Your task to perform on an android device: find snoozed emails in the gmail app Image 0: 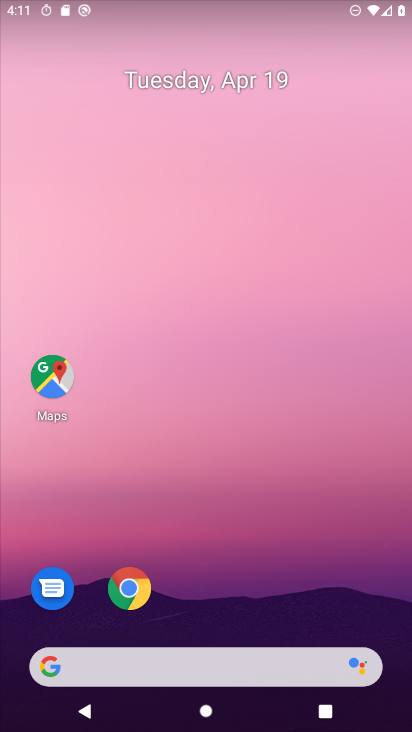
Step 0: click (263, 63)
Your task to perform on an android device: find snoozed emails in the gmail app Image 1: 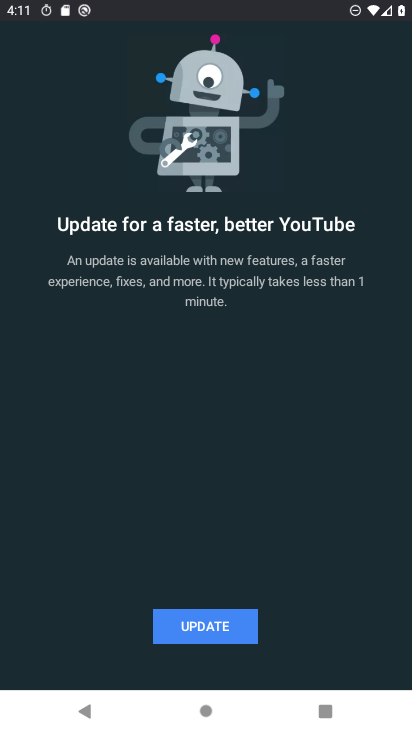
Step 1: press home button
Your task to perform on an android device: find snoozed emails in the gmail app Image 2: 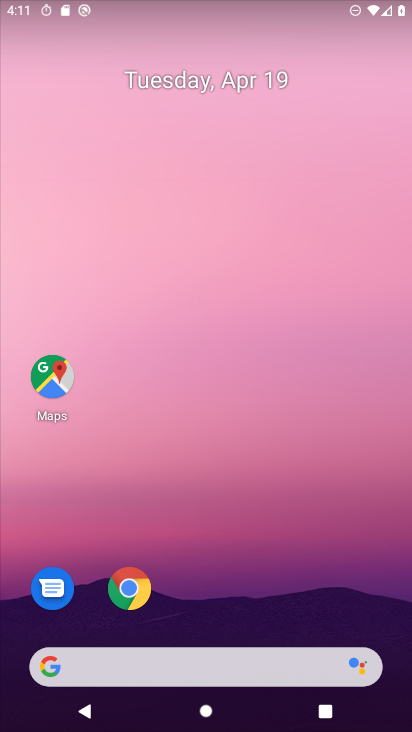
Step 2: drag from (218, 523) to (232, 48)
Your task to perform on an android device: find snoozed emails in the gmail app Image 3: 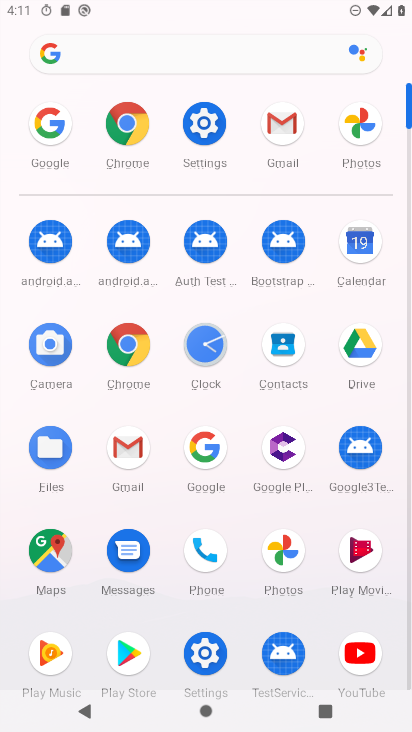
Step 3: click (275, 122)
Your task to perform on an android device: find snoozed emails in the gmail app Image 4: 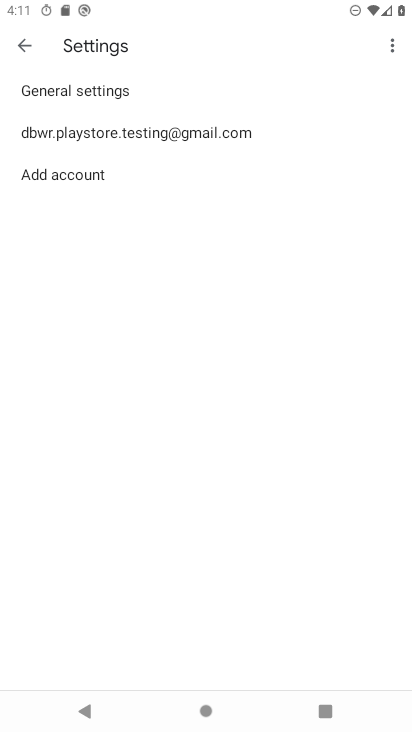
Step 4: click (24, 50)
Your task to perform on an android device: find snoozed emails in the gmail app Image 5: 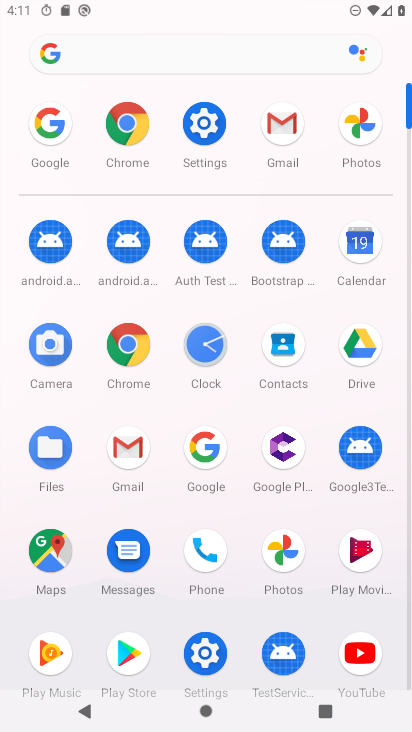
Step 5: click (284, 125)
Your task to perform on an android device: find snoozed emails in the gmail app Image 6: 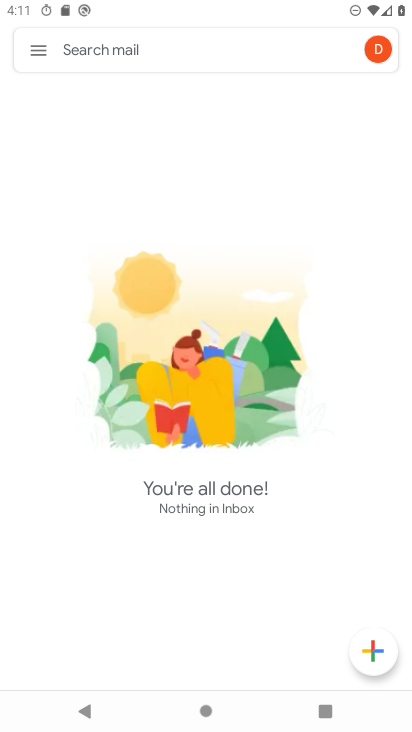
Step 6: click (42, 50)
Your task to perform on an android device: find snoozed emails in the gmail app Image 7: 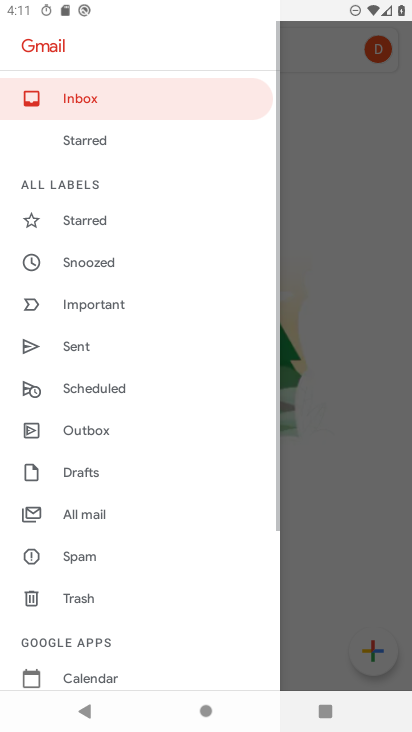
Step 7: click (106, 266)
Your task to perform on an android device: find snoozed emails in the gmail app Image 8: 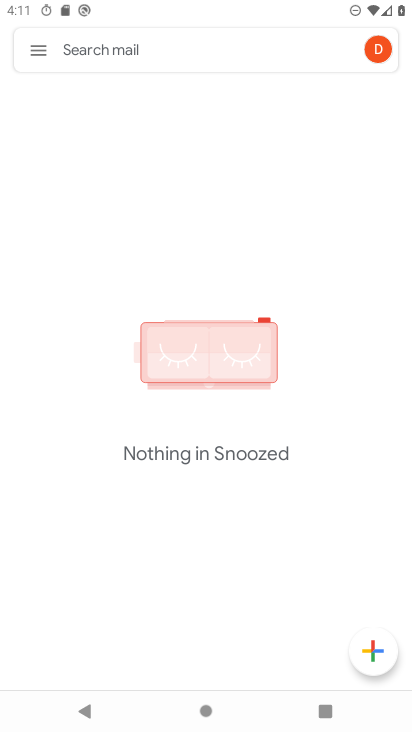
Step 8: task complete